Your task to perform on an android device: Open Wikipedia Image 0: 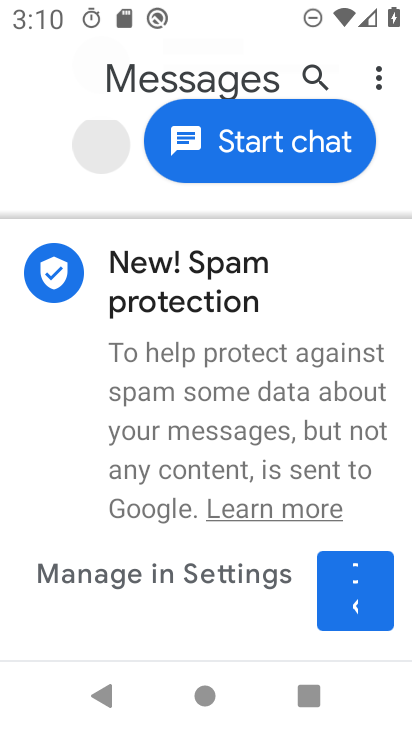
Step 0: press home button
Your task to perform on an android device: Open Wikipedia Image 1: 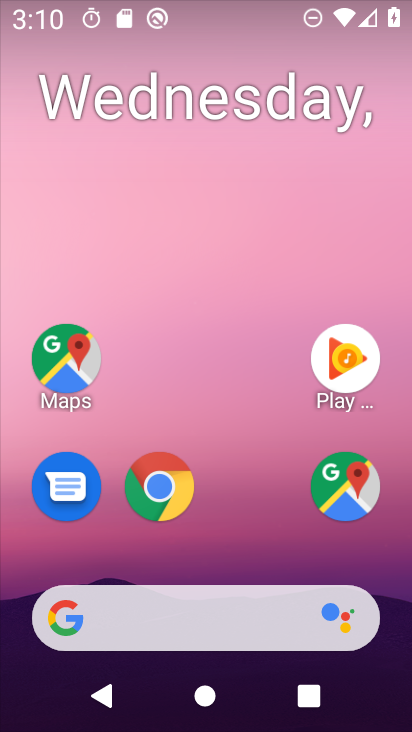
Step 1: drag from (262, 546) to (259, 117)
Your task to perform on an android device: Open Wikipedia Image 2: 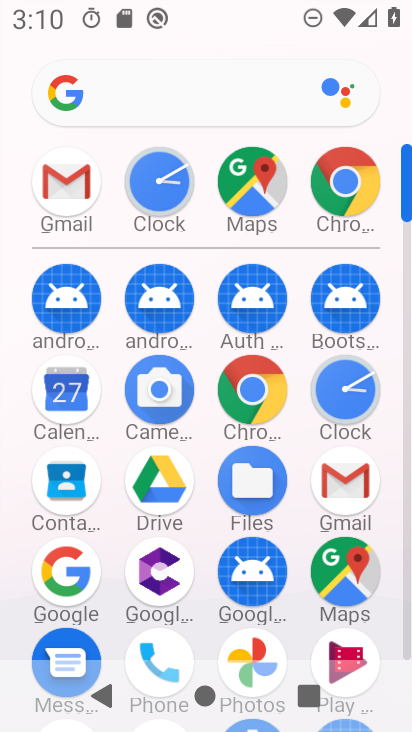
Step 2: click (252, 386)
Your task to perform on an android device: Open Wikipedia Image 3: 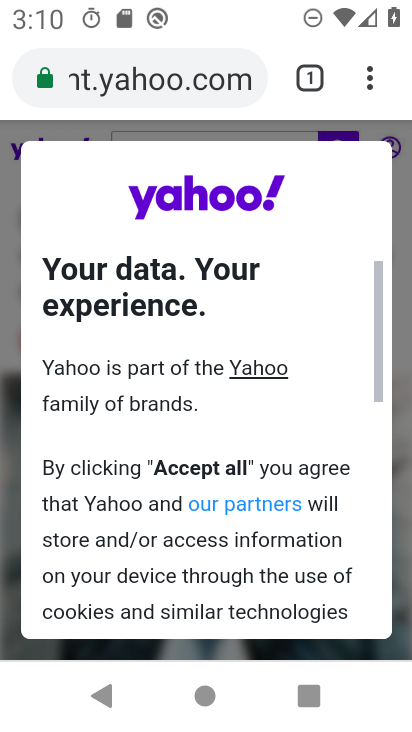
Step 3: click (210, 86)
Your task to perform on an android device: Open Wikipedia Image 4: 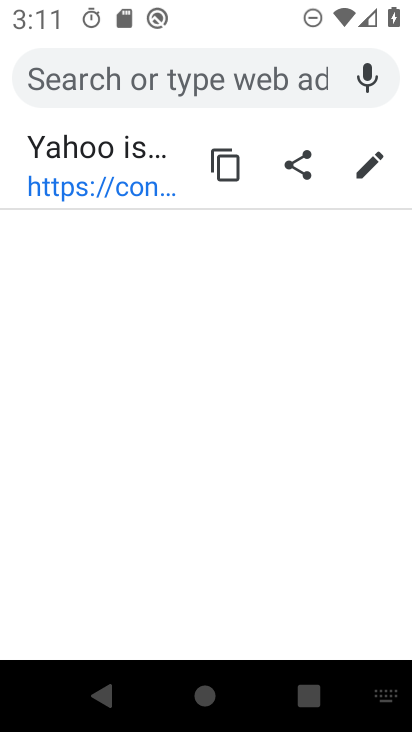
Step 4: type "wikipedia"
Your task to perform on an android device: Open Wikipedia Image 5: 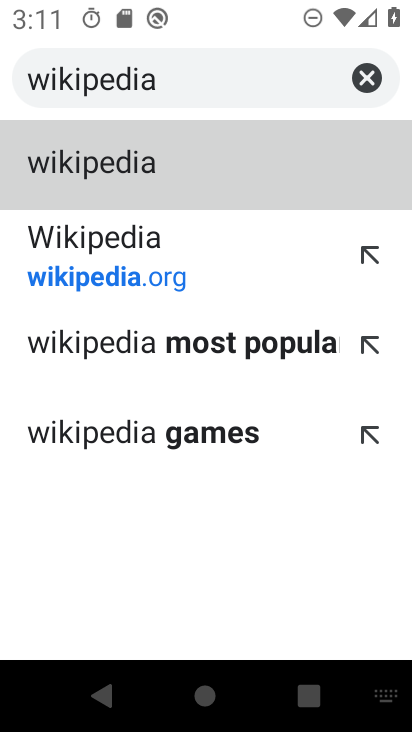
Step 5: click (345, 174)
Your task to perform on an android device: Open Wikipedia Image 6: 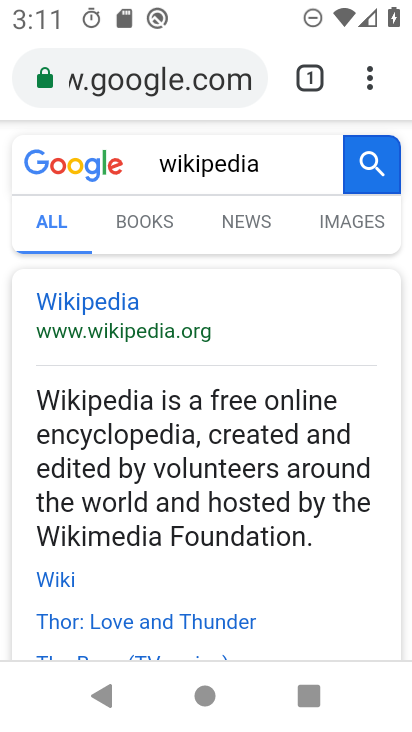
Step 6: task complete